Your task to perform on an android device: Clear all items from cart on newegg. Search for razer blade on newegg, select the first entry, add it to the cart, then select checkout. Image 0: 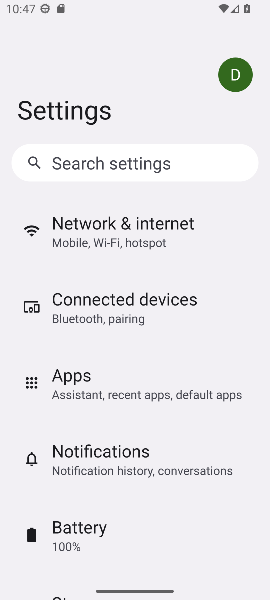
Step 0: press home button
Your task to perform on an android device: Clear all items from cart on newegg. Search for razer blade on newegg, select the first entry, add it to the cart, then select checkout. Image 1: 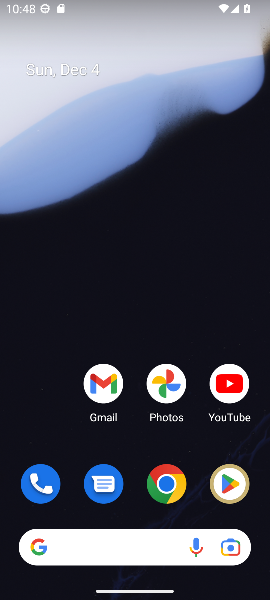
Step 1: click (170, 482)
Your task to perform on an android device: Clear all items from cart on newegg. Search for razer blade on newegg, select the first entry, add it to the cart, then select checkout. Image 2: 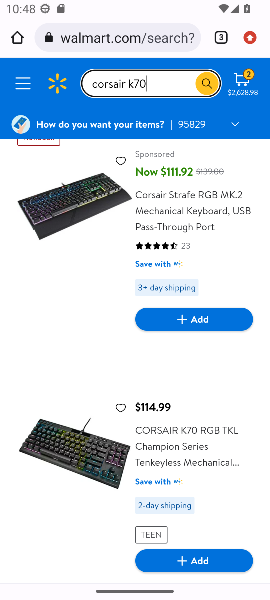
Step 2: click (136, 44)
Your task to perform on an android device: Clear all items from cart on newegg. Search for razer blade on newegg, select the first entry, add it to the cart, then select checkout. Image 3: 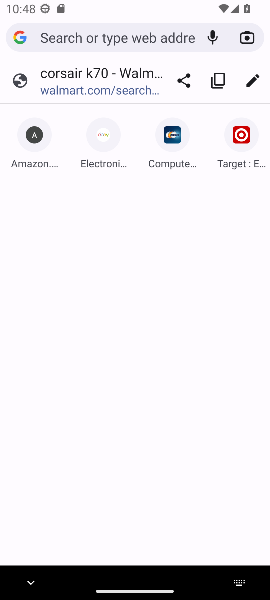
Step 3: click (177, 168)
Your task to perform on an android device: Clear all items from cart on newegg. Search for razer blade on newegg, select the first entry, add it to the cart, then select checkout. Image 4: 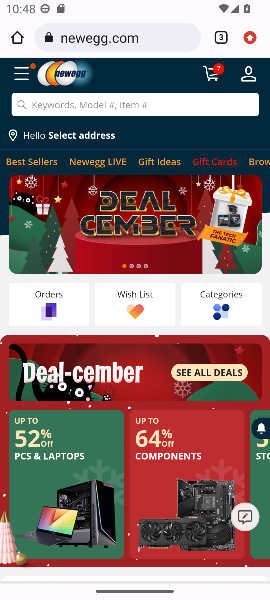
Step 4: click (209, 77)
Your task to perform on an android device: Clear all items from cart on newegg. Search for razer blade on newegg, select the first entry, add it to the cart, then select checkout. Image 5: 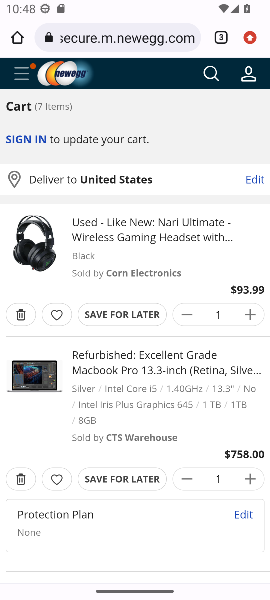
Step 5: click (15, 316)
Your task to perform on an android device: Clear all items from cart on newegg. Search for razer blade on newegg, select the first entry, add it to the cart, then select checkout. Image 6: 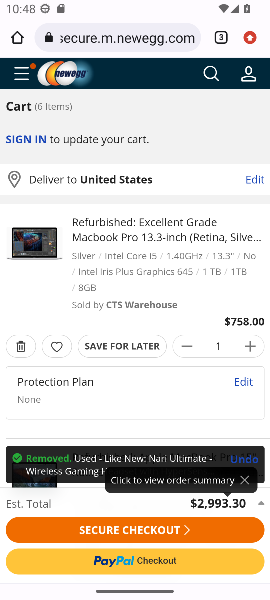
Step 6: click (21, 345)
Your task to perform on an android device: Clear all items from cart on newegg. Search for razer blade on newegg, select the first entry, add it to the cart, then select checkout. Image 7: 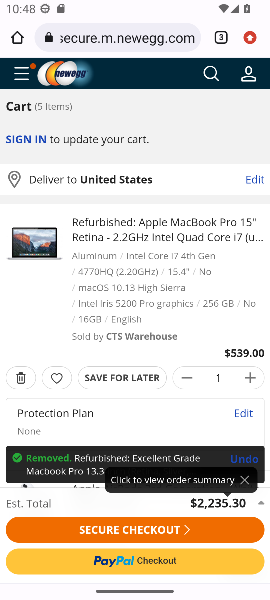
Step 7: click (21, 379)
Your task to perform on an android device: Clear all items from cart on newegg. Search for razer blade on newegg, select the first entry, add it to the cart, then select checkout. Image 8: 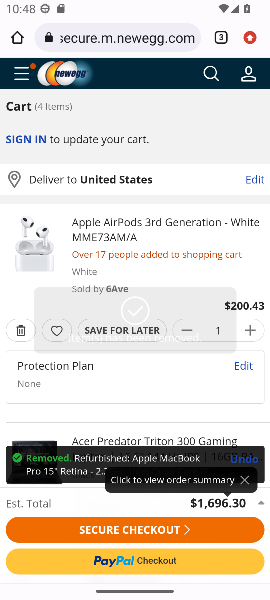
Step 8: click (19, 333)
Your task to perform on an android device: Clear all items from cart on newegg. Search for razer blade on newegg, select the first entry, add it to the cart, then select checkout. Image 9: 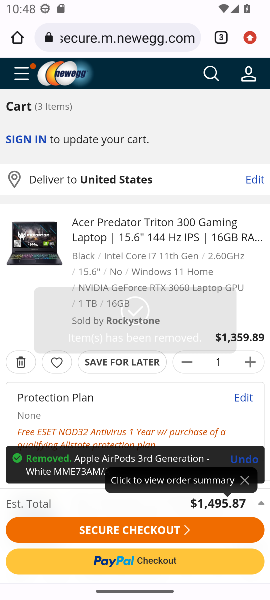
Step 9: click (19, 365)
Your task to perform on an android device: Clear all items from cart on newegg. Search for razer blade on newegg, select the first entry, add it to the cart, then select checkout. Image 10: 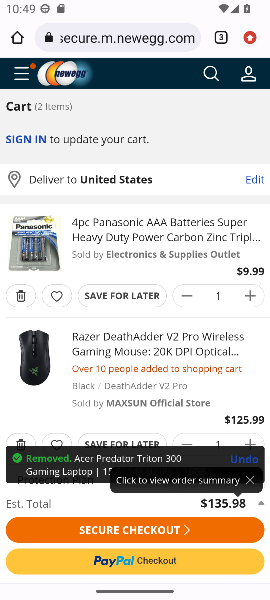
Step 10: click (18, 292)
Your task to perform on an android device: Clear all items from cart on newegg. Search for razer blade on newegg, select the first entry, add it to the cart, then select checkout. Image 11: 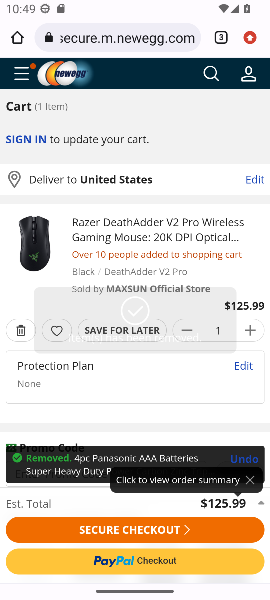
Step 11: click (17, 334)
Your task to perform on an android device: Clear all items from cart on newegg. Search for razer blade on newegg, select the first entry, add it to the cart, then select checkout. Image 12: 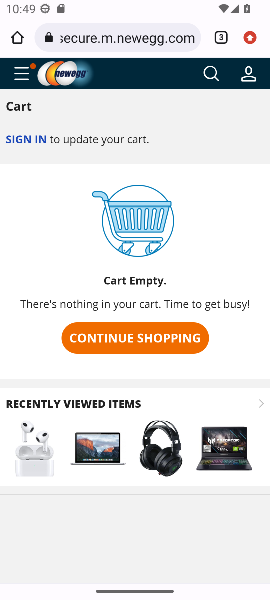
Step 12: click (209, 77)
Your task to perform on an android device: Clear all items from cart on newegg. Search for razer blade on newegg, select the first entry, add it to the cart, then select checkout. Image 13: 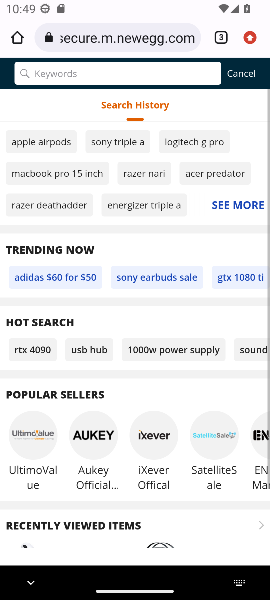
Step 13: type "razer blade"
Your task to perform on an android device: Clear all items from cart on newegg. Search for razer blade on newegg, select the first entry, add it to the cart, then select checkout. Image 14: 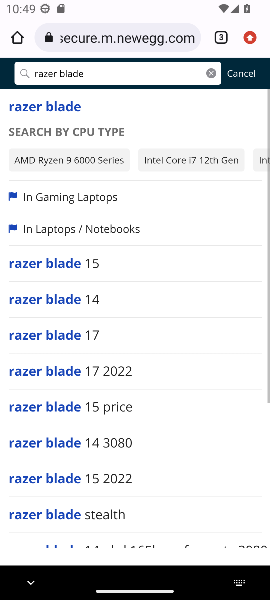
Step 14: click (56, 112)
Your task to perform on an android device: Clear all items from cart on newegg. Search for razer blade on newegg, select the first entry, add it to the cart, then select checkout. Image 15: 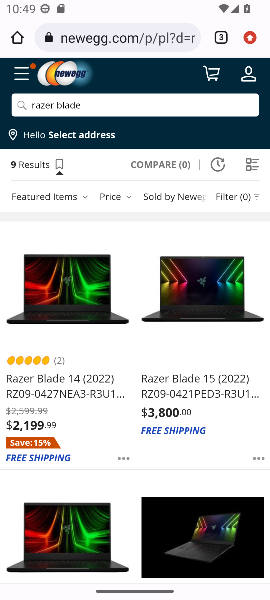
Step 15: click (44, 388)
Your task to perform on an android device: Clear all items from cart on newegg. Search for razer blade on newegg, select the first entry, add it to the cart, then select checkout. Image 16: 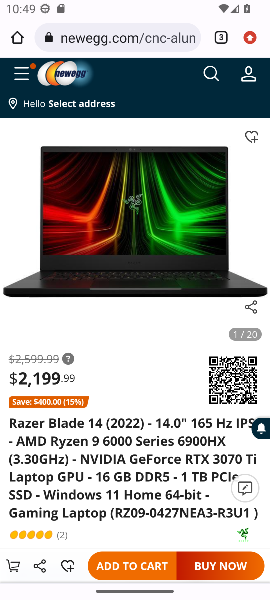
Step 16: click (115, 568)
Your task to perform on an android device: Clear all items from cart on newegg. Search for razer blade on newegg, select the first entry, add it to the cart, then select checkout. Image 17: 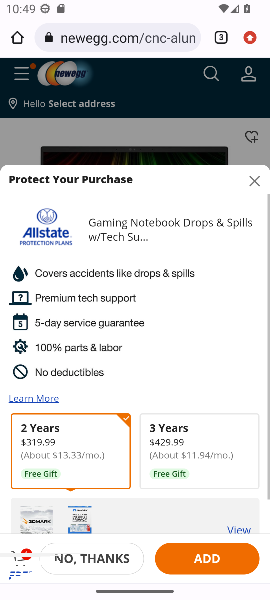
Step 17: drag from (81, 496) to (101, 410)
Your task to perform on an android device: Clear all items from cart on newegg. Search for razer blade on newegg, select the first entry, add it to the cart, then select checkout. Image 18: 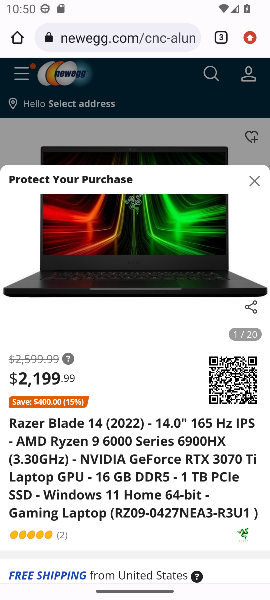
Step 18: drag from (140, 500) to (151, 454)
Your task to perform on an android device: Clear all items from cart on newegg. Search for razer blade on newegg, select the first entry, add it to the cart, then select checkout. Image 19: 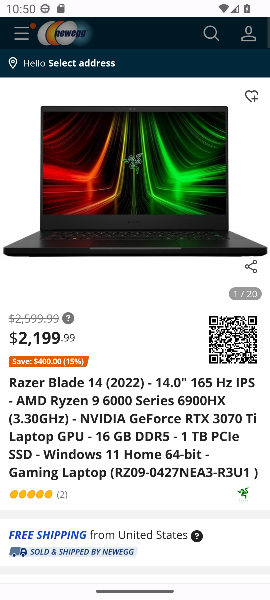
Step 19: drag from (91, 472) to (104, 544)
Your task to perform on an android device: Clear all items from cart on newegg. Search for razer blade on newegg, select the first entry, add it to the cart, then select checkout. Image 20: 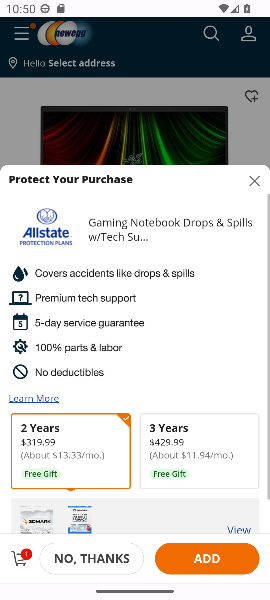
Step 20: click (28, 554)
Your task to perform on an android device: Clear all items from cart on newegg. Search for razer blade on newegg, select the first entry, add it to the cart, then select checkout. Image 21: 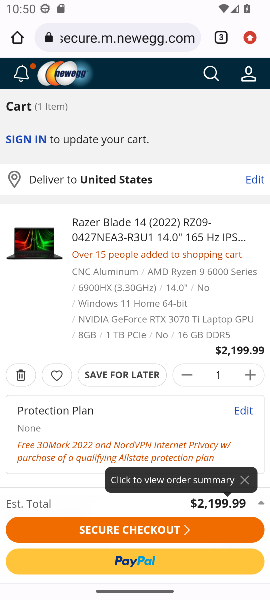
Step 21: click (85, 554)
Your task to perform on an android device: Clear all items from cart on newegg. Search for razer blade on newegg, select the first entry, add it to the cart, then select checkout. Image 22: 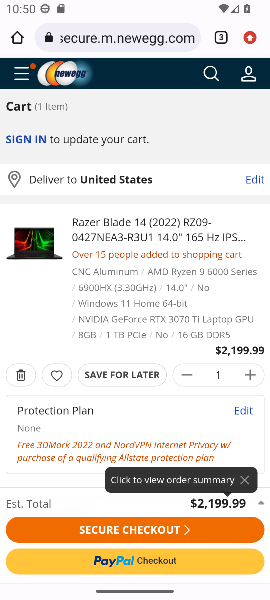
Step 22: click (106, 531)
Your task to perform on an android device: Clear all items from cart on newegg. Search for razer blade on newegg, select the first entry, add it to the cart, then select checkout. Image 23: 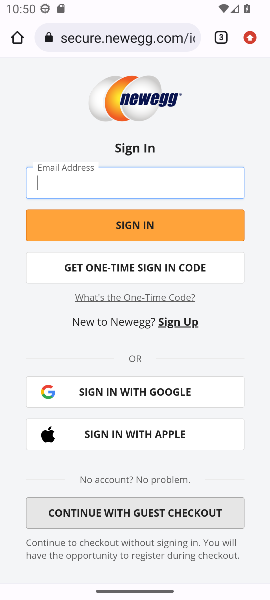
Step 23: task complete